Your task to perform on an android device: Search for 5 star sushi restaurants on Maps Image 0: 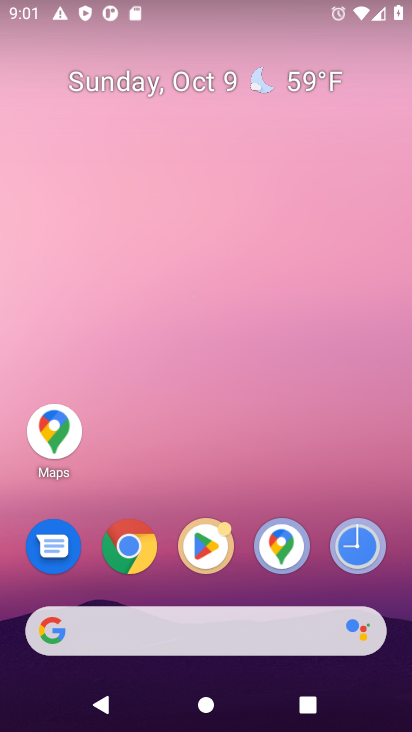
Step 0: click (142, 552)
Your task to perform on an android device: Search for 5 star sushi restaurants on Maps Image 1: 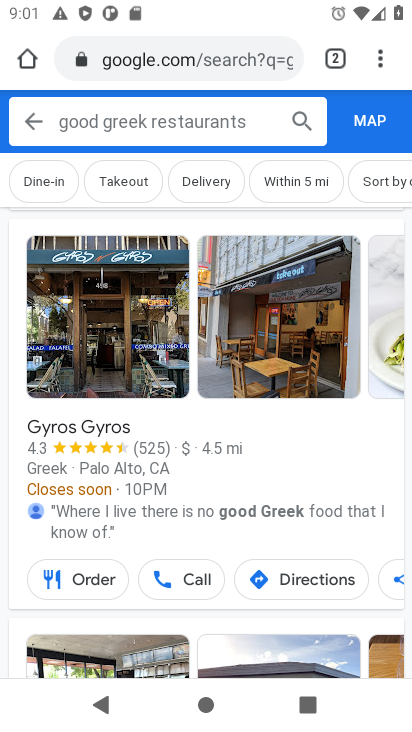
Step 1: click (231, 64)
Your task to perform on an android device: Search for 5 star sushi restaurants on Maps Image 2: 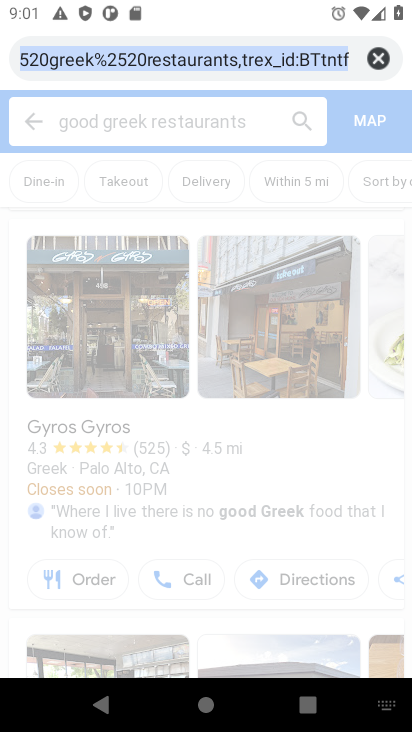
Step 2: press home button
Your task to perform on an android device: Search for 5 star sushi restaurants on Maps Image 3: 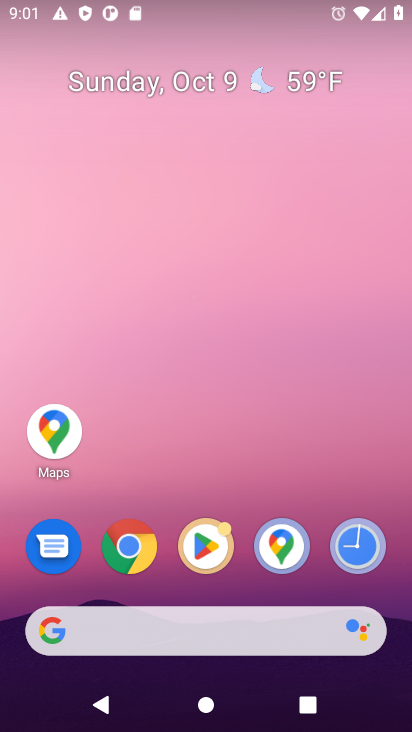
Step 3: click (50, 427)
Your task to perform on an android device: Search for 5 star sushi restaurants on Maps Image 4: 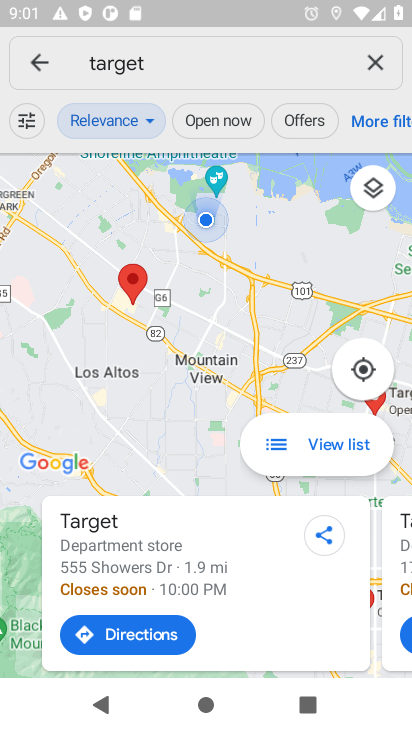
Step 4: click (375, 57)
Your task to perform on an android device: Search for 5 star sushi restaurants on Maps Image 5: 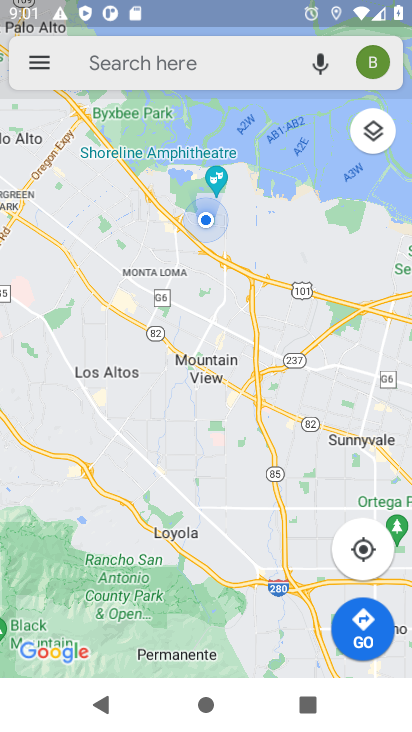
Step 5: click (216, 49)
Your task to perform on an android device: Search for 5 star sushi restaurants on Maps Image 6: 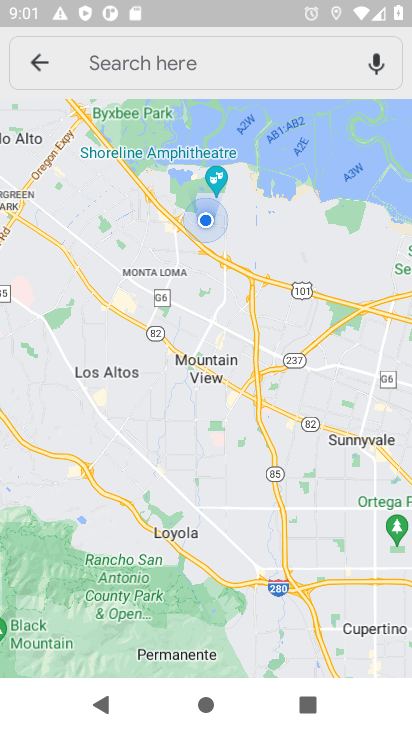
Step 6: click (206, 65)
Your task to perform on an android device: Search for 5 star sushi restaurants on Maps Image 7: 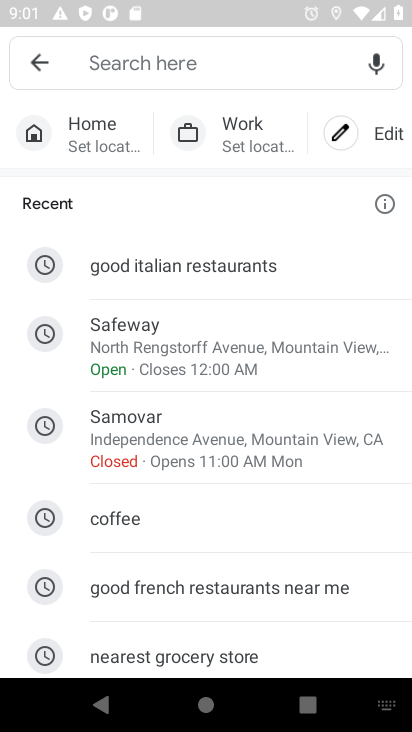
Step 7: type "5 star sushi restaurants"
Your task to perform on an android device: Search for 5 star sushi restaurants on Maps Image 8: 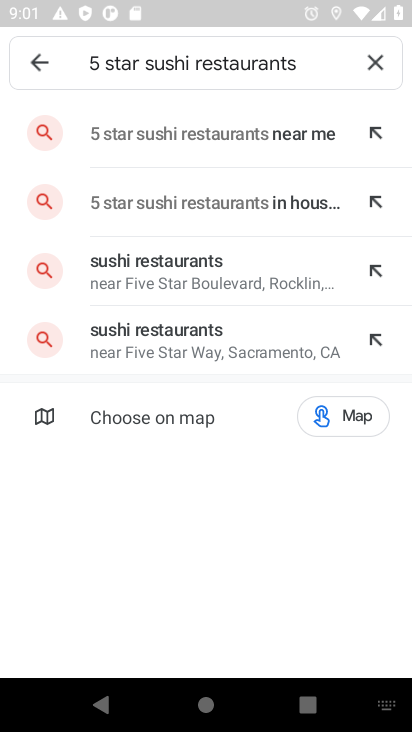
Step 8: press enter
Your task to perform on an android device: Search for 5 star sushi restaurants on Maps Image 9: 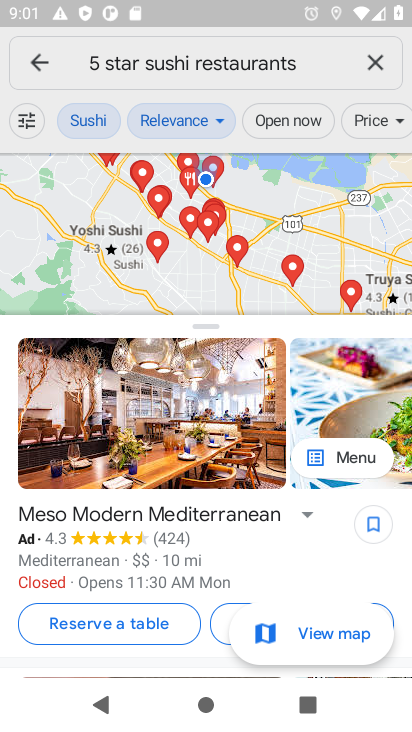
Step 9: task complete